Your task to perform on an android device: Open Youtube and go to the subscriptions tab Image 0: 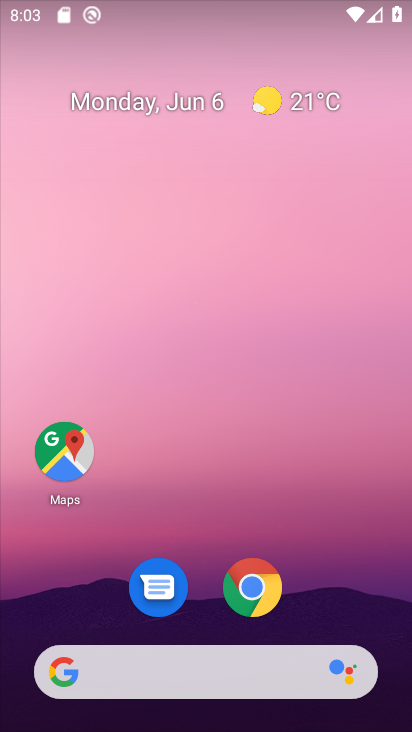
Step 0: drag from (325, 592) to (283, 176)
Your task to perform on an android device: Open Youtube and go to the subscriptions tab Image 1: 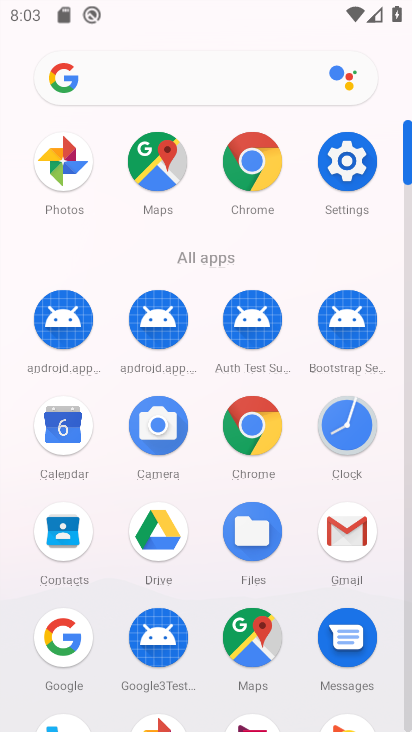
Step 1: drag from (203, 589) to (177, 206)
Your task to perform on an android device: Open Youtube and go to the subscriptions tab Image 2: 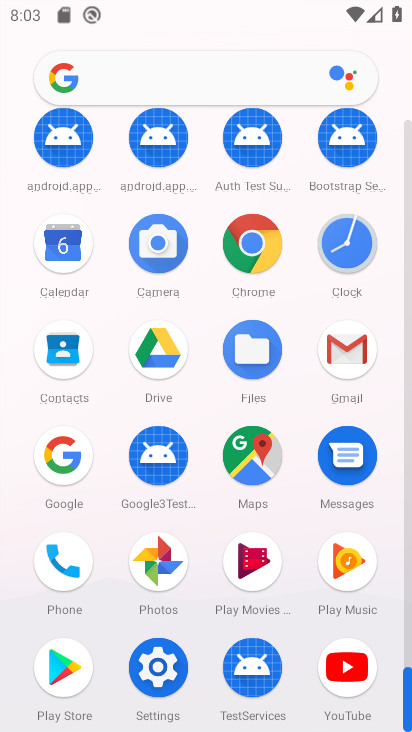
Step 2: click (342, 684)
Your task to perform on an android device: Open Youtube and go to the subscriptions tab Image 3: 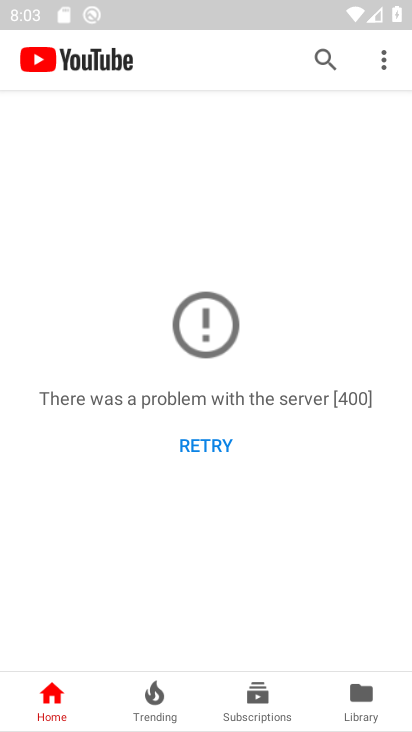
Step 3: click (252, 704)
Your task to perform on an android device: Open Youtube and go to the subscriptions tab Image 4: 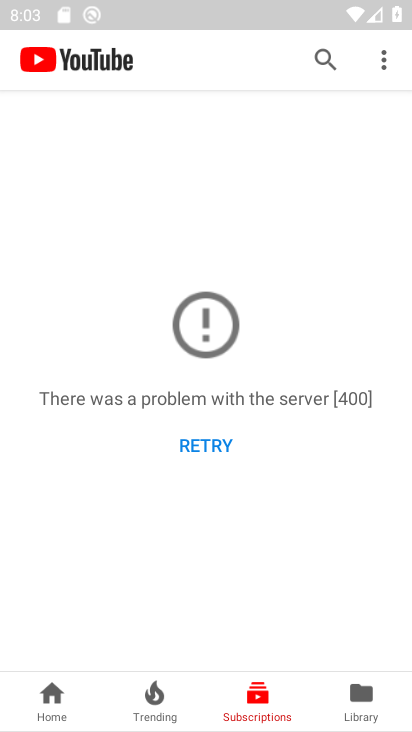
Step 4: task complete